Your task to perform on an android device: Open notification settings Image 0: 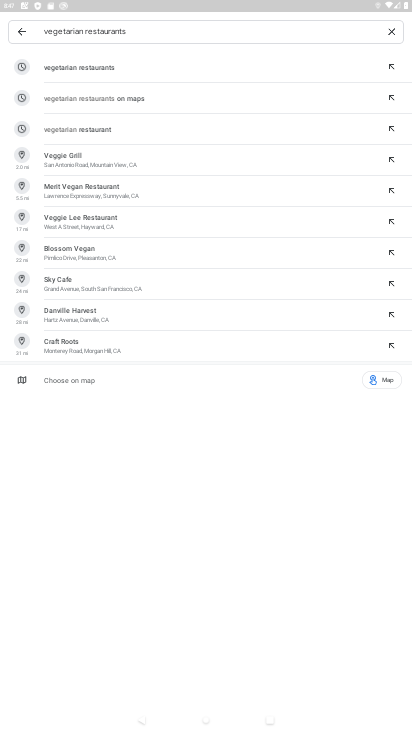
Step 0: press home button
Your task to perform on an android device: Open notification settings Image 1: 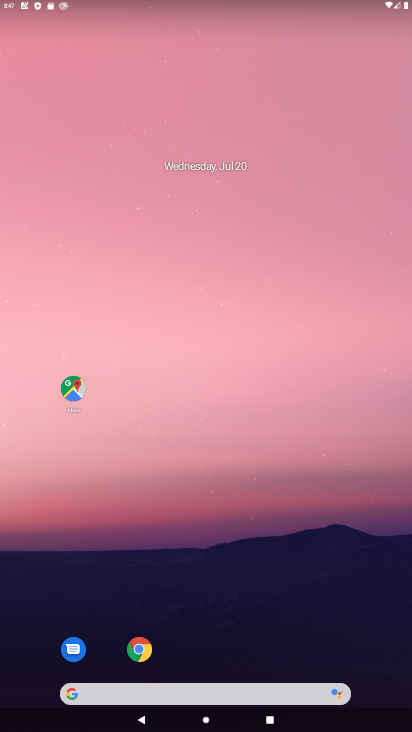
Step 1: drag from (238, 635) to (297, 144)
Your task to perform on an android device: Open notification settings Image 2: 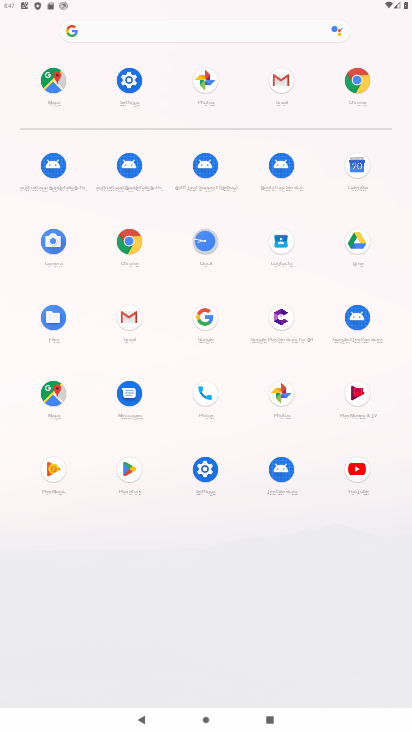
Step 2: click (131, 88)
Your task to perform on an android device: Open notification settings Image 3: 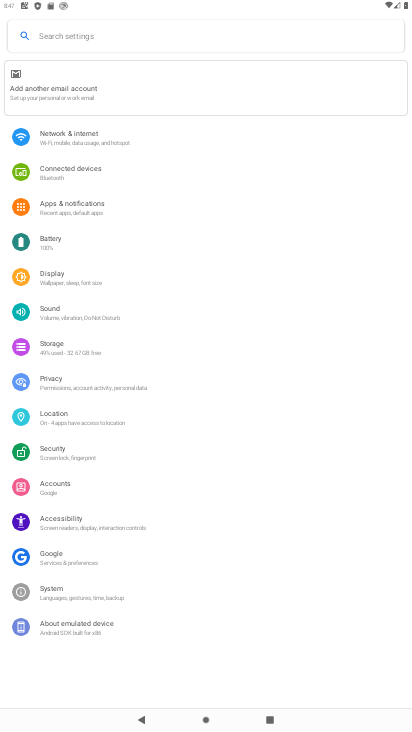
Step 3: click (69, 211)
Your task to perform on an android device: Open notification settings Image 4: 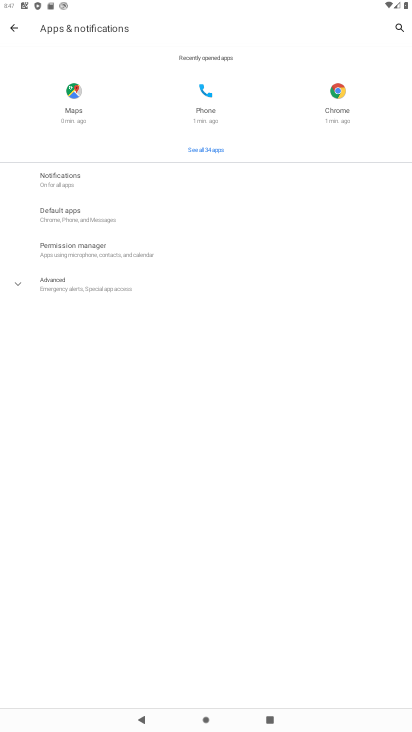
Step 4: click (98, 193)
Your task to perform on an android device: Open notification settings Image 5: 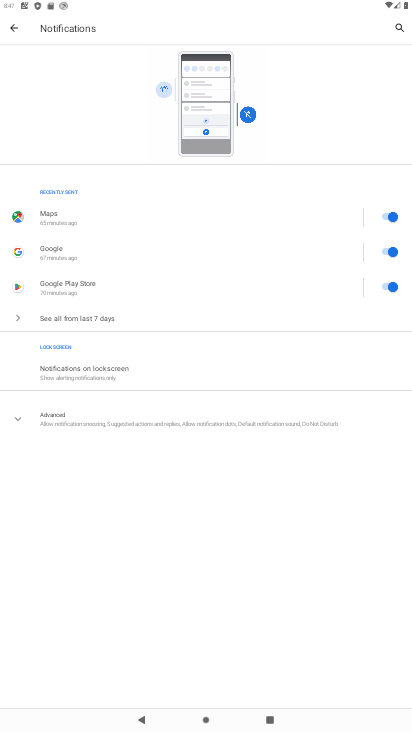
Step 5: task complete